Your task to perform on an android device: change notifications settings Image 0: 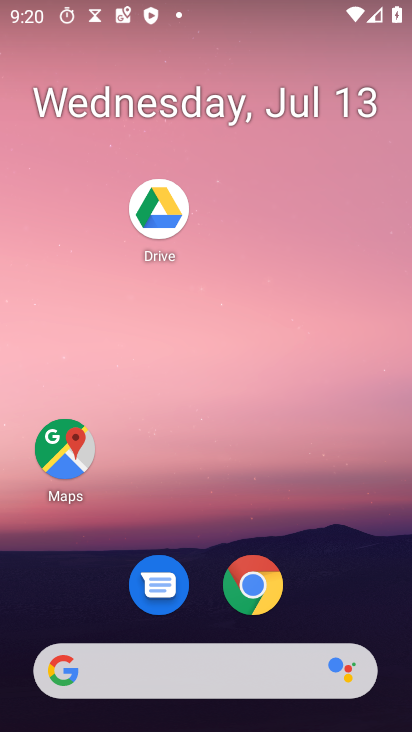
Step 0: press home button
Your task to perform on an android device: change notifications settings Image 1: 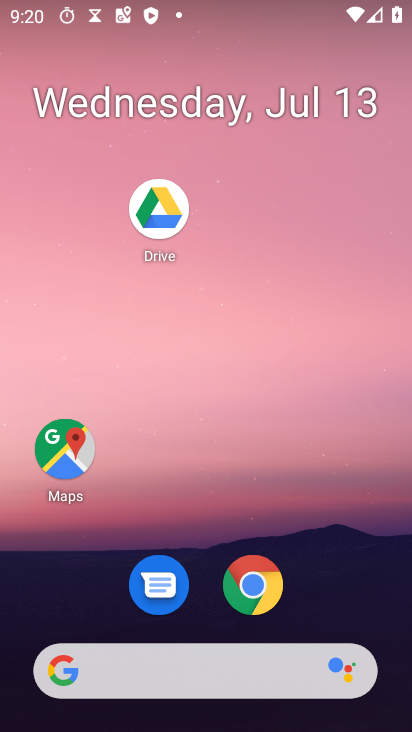
Step 1: drag from (233, 634) to (325, 163)
Your task to perform on an android device: change notifications settings Image 2: 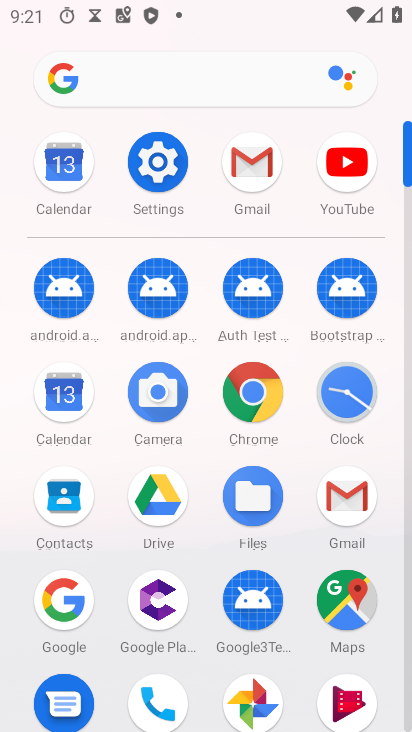
Step 2: click (164, 166)
Your task to perform on an android device: change notifications settings Image 3: 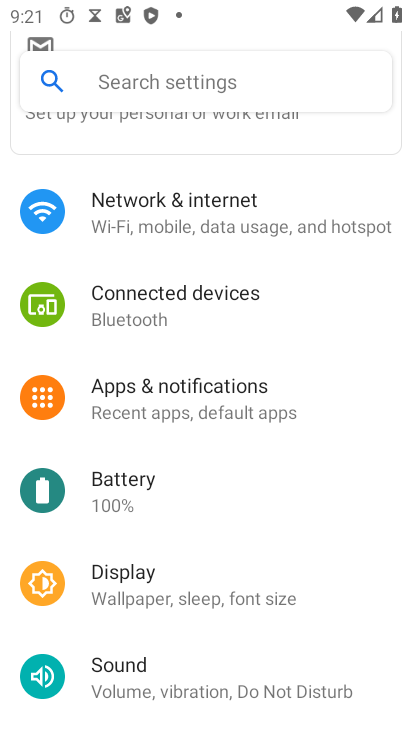
Step 3: click (226, 394)
Your task to perform on an android device: change notifications settings Image 4: 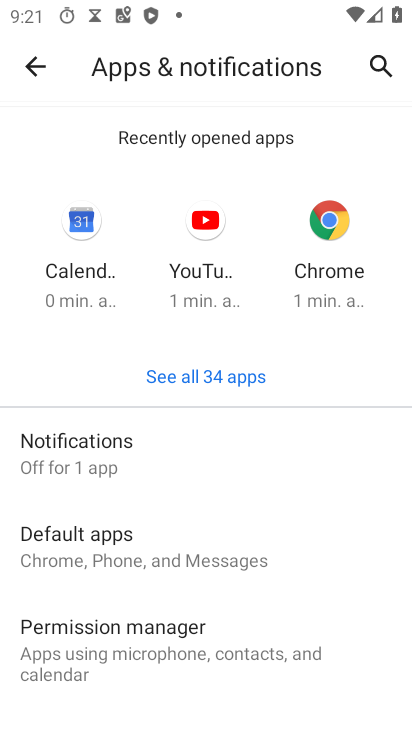
Step 4: click (103, 457)
Your task to perform on an android device: change notifications settings Image 5: 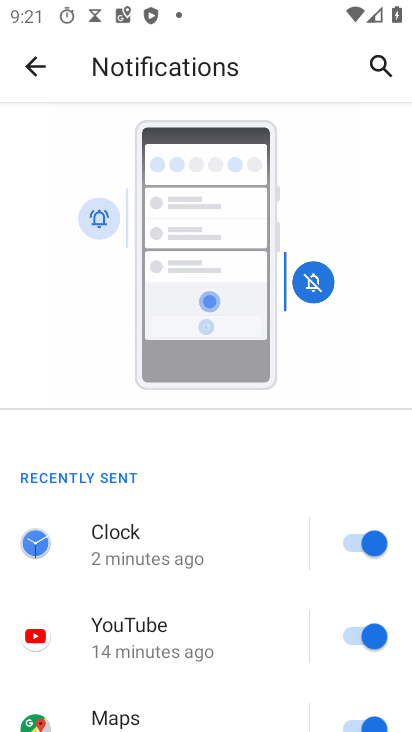
Step 5: drag from (191, 640) to (323, 207)
Your task to perform on an android device: change notifications settings Image 6: 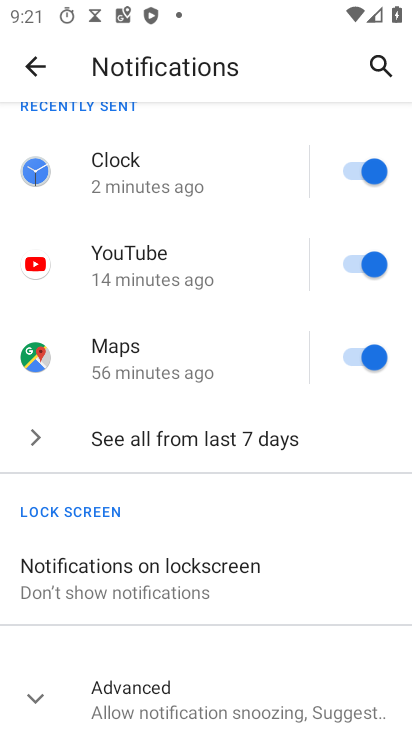
Step 6: click (355, 174)
Your task to perform on an android device: change notifications settings Image 7: 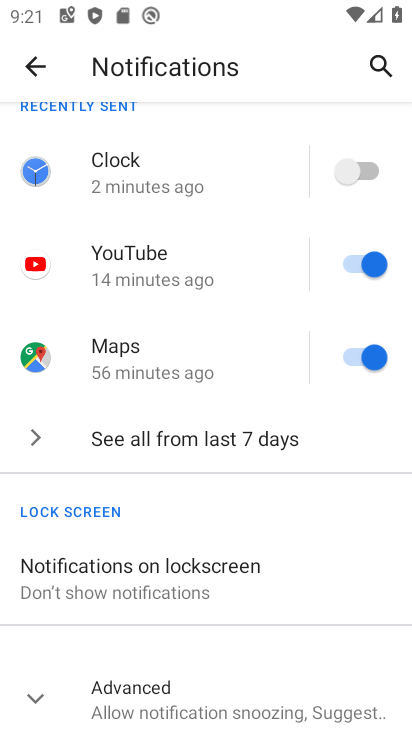
Step 7: task complete